Your task to perform on an android device: find snoozed emails in the gmail app Image 0: 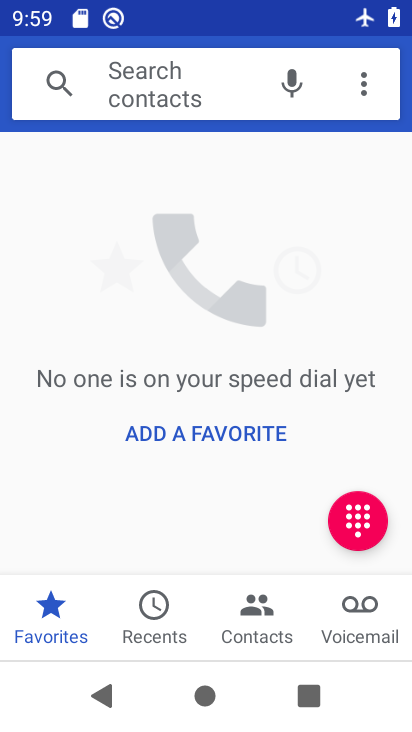
Step 0: press home button
Your task to perform on an android device: find snoozed emails in the gmail app Image 1: 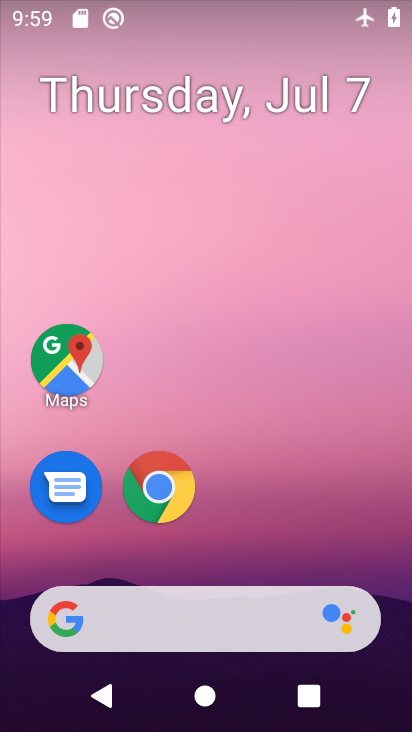
Step 1: drag from (385, 548) to (386, 181)
Your task to perform on an android device: find snoozed emails in the gmail app Image 2: 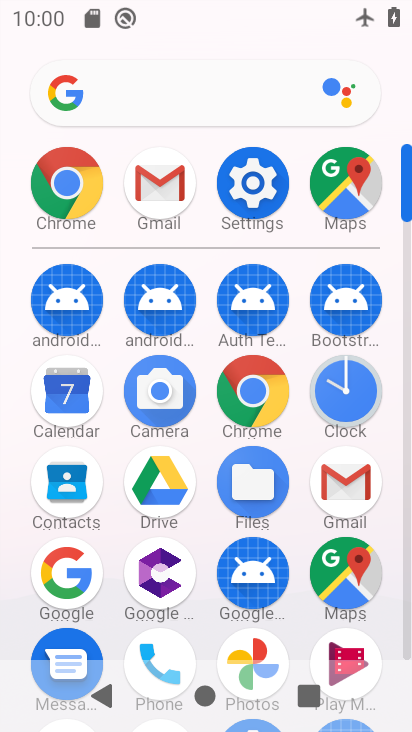
Step 2: click (363, 490)
Your task to perform on an android device: find snoozed emails in the gmail app Image 3: 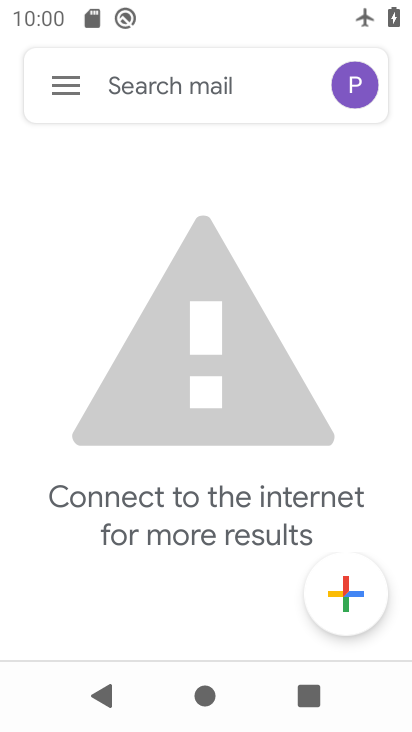
Step 3: click (73, 96)
Your task to perform on an android device: find snoozed emails in the gmail app Image 4: 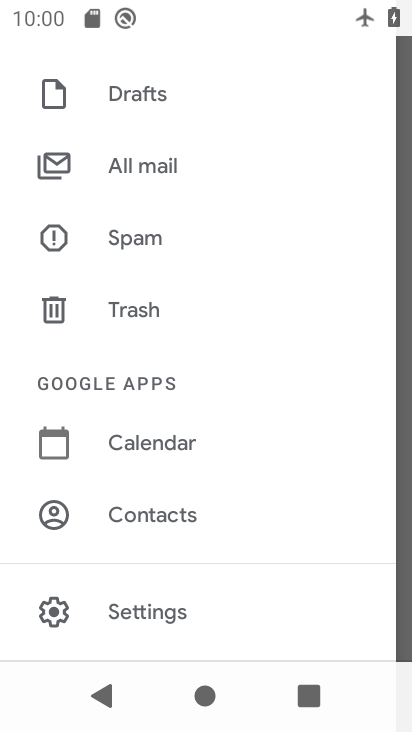
Step 4: drag from (233, 181) to (241, 252)
Your task to perform on an android device: find snoozed emails in the gmail app Image 5: 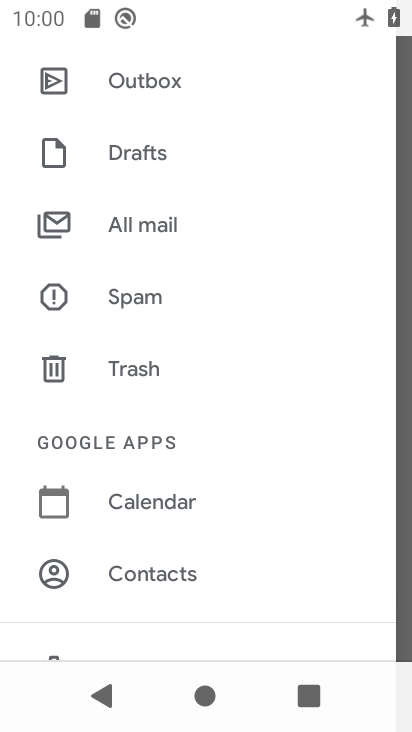
Step 5: drag from (267, 159) to (266, 276)
Your task to perform on an android device: find snoozed emails in the gmail app Image 6: 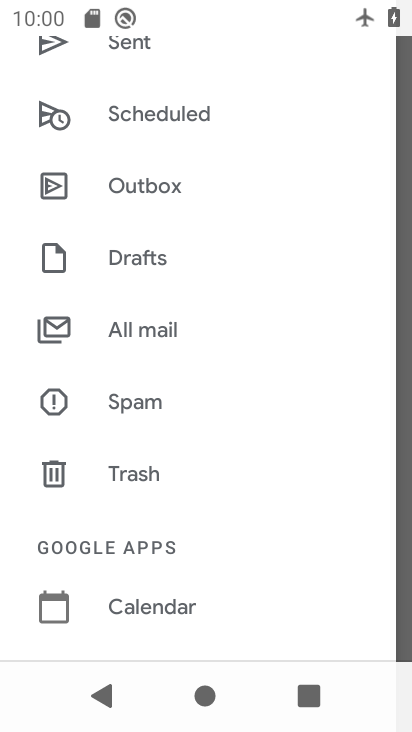
Step 6: drag from (266, 163) to (267, 305)
Your task to perform on an android device: find snoozed emails in the gmail app Image 7: 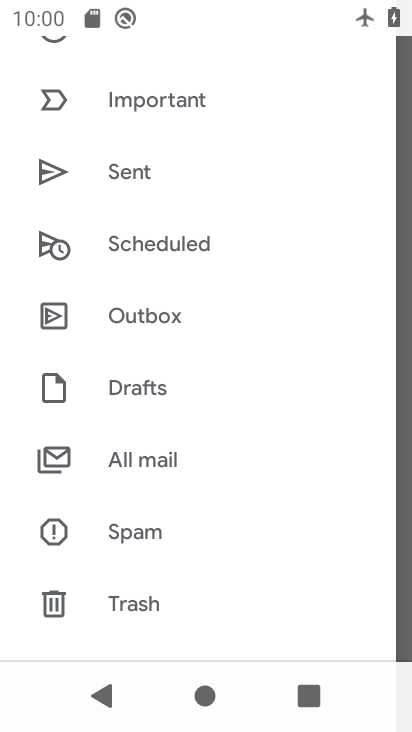
Step 7: drag from (302, 153) to (325, 359)
Your task to perform on an android device: find snoozed emails in the gmail app Image 8: 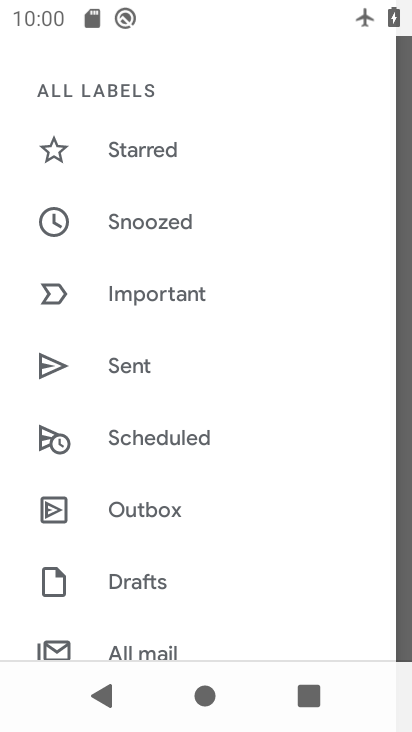
Step 8: drag from (296, 200) to (297, 377)
Your task to perform on an android device: find snoozed emails in the gmail app Image 9: 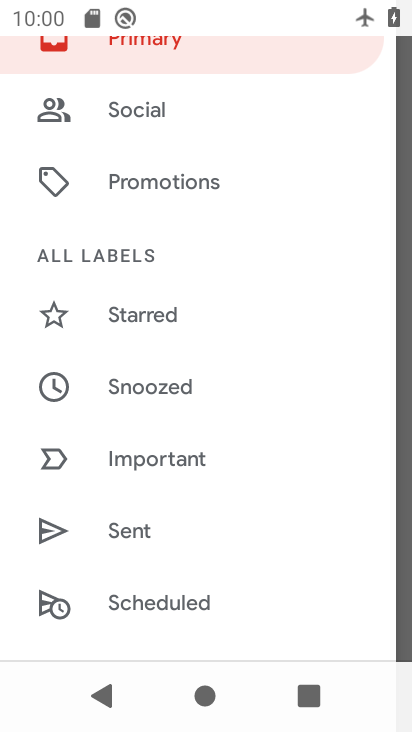
Step 9: drag from (296, 221) to (303, 371)
Your task to perform on an android device: find snoozed emails in the gmail app Image 10: 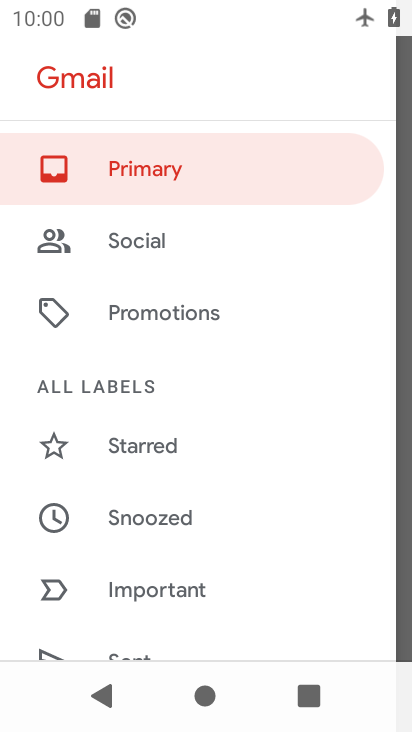
Step 10: click (200, 526)
Your task to perform on an android device: find snoozed emails in the gmail app Image 11: 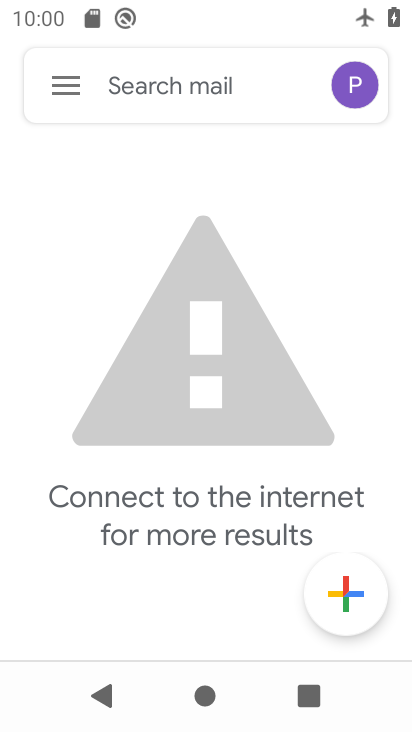
Step 11: task complete